Your task to perform on an android device: find snoozed emails in the gmail app Image 0: 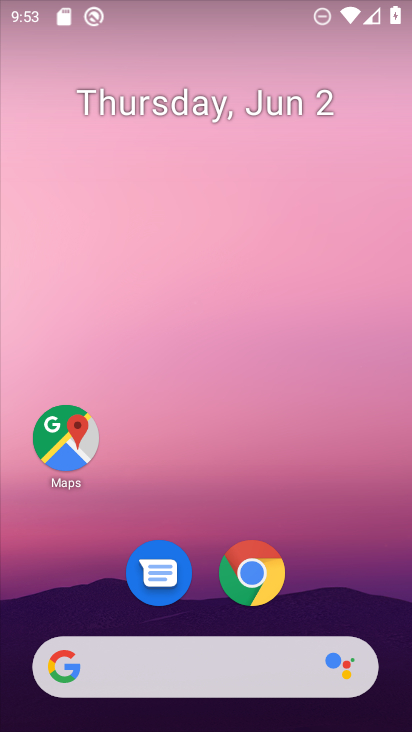
Step 0: drag from (326, 566) to (283, 145)
Your task to perform on an android device: find snoozed emails in the gmail app Image 1: 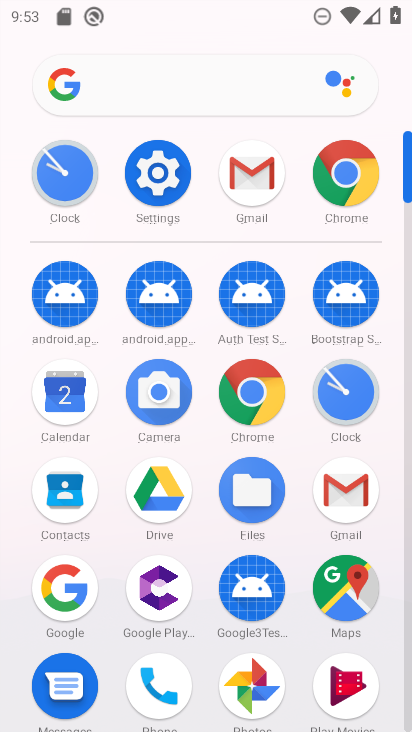
Step 1: click (242, 168)
Your task to perform on an android device: find snoozed emails in the gmail app Image 2: 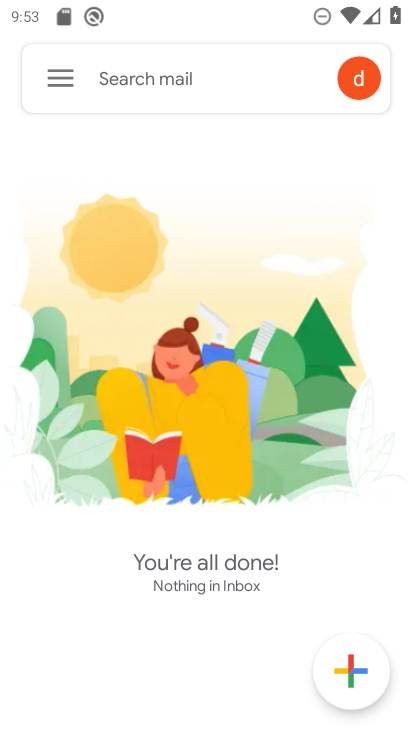
Step 2: click (67, 87)
Your task to perform on an android device: find snoozed emails in the gmail app Image 3: 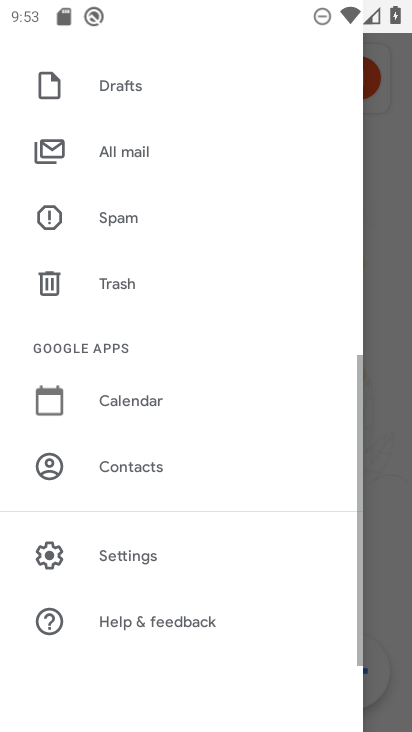
Step 3: drag from (181, 212) to (220, 627)
Your task to perform on an android device: find snoozed emails in the gmail app Image 4: 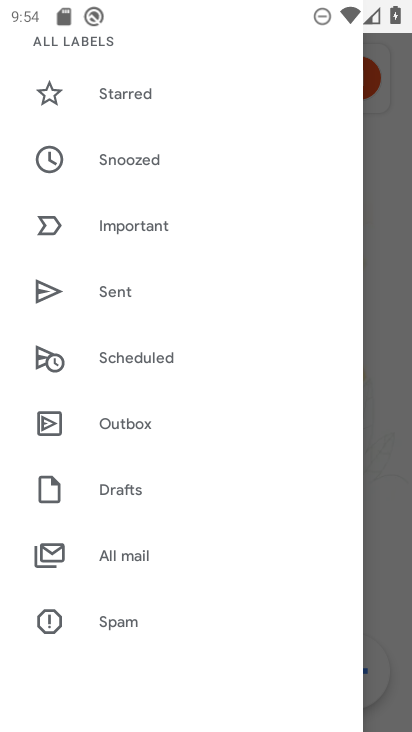
Step 4: click (98, 161)
Your task to perform on an android device: find snoozed emails in the gmail app Image 5: 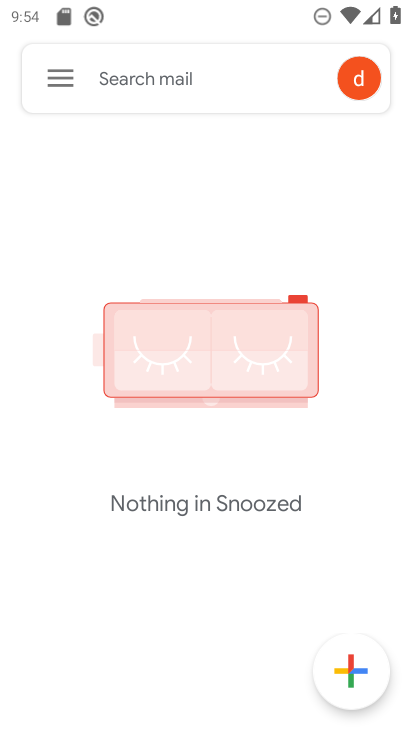
Step 5: task complete